Your task to perform on an android device: turn on sleep mode Image 0: 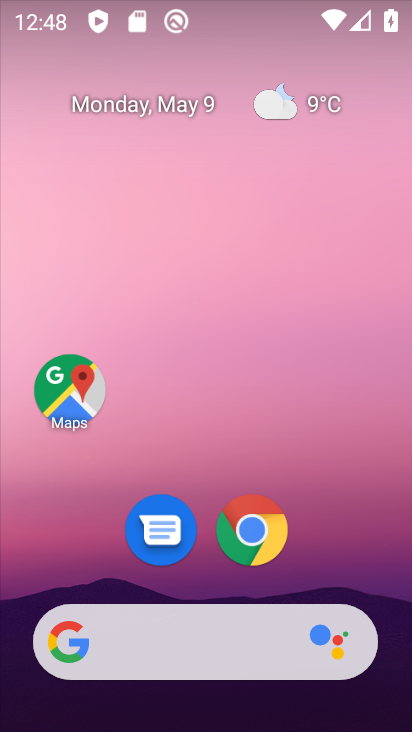
Step 0: drag from (323, 235) to (320, 144)
Your task to perform on an android device: turn on sleep mode Image 1: 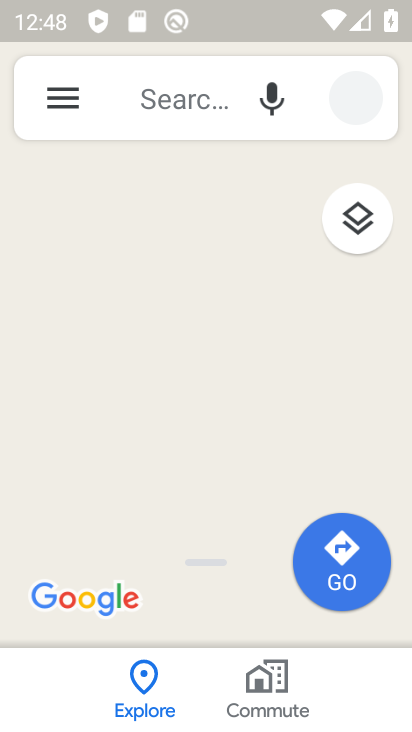
Step 1: press home button
Your task to perform on an android device: turn on sleep mode Image 2: 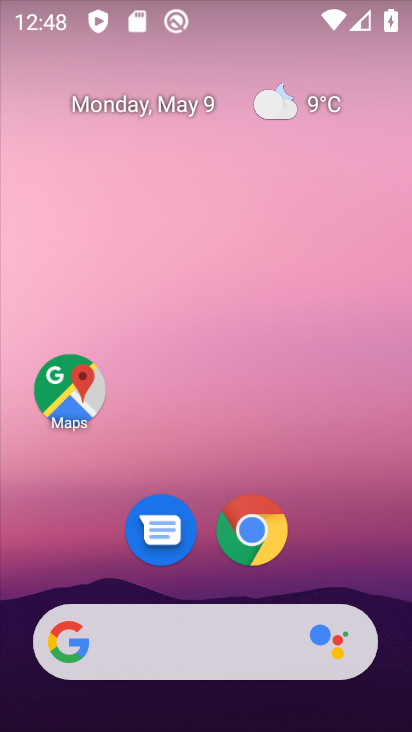
Step 2: drag from (302, 579) to (298, 244)
Your task to perform on an android device: turn on sleep mode Image 3: 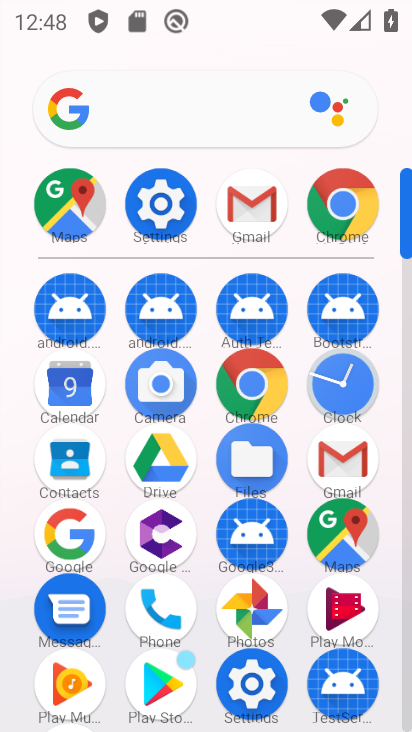
Step 3: click (155, 213)
Your task to perform on an android device: turn on sleep mode Image 4: 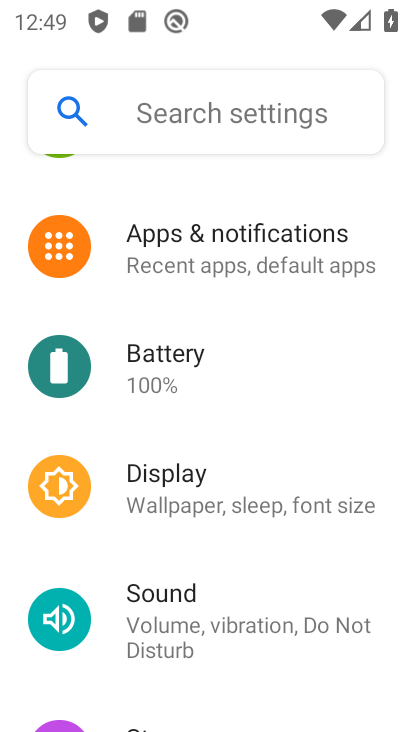
Step 4: task complete